Your task to perform on an android device: open wifi settings Image 0: 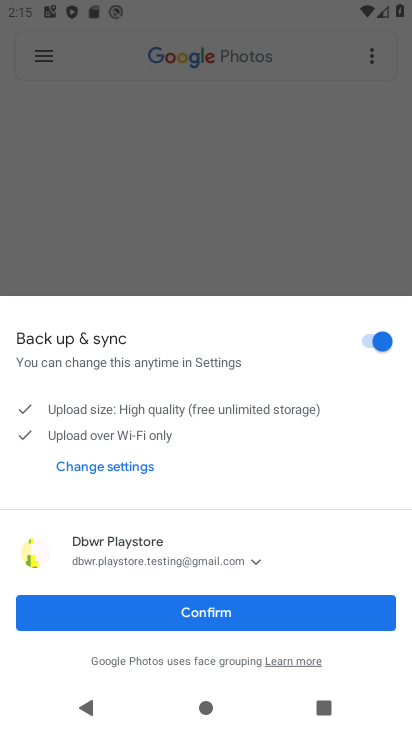
Step 0: press home button
Your task to perform on an android device: open wifi settings Image 1: 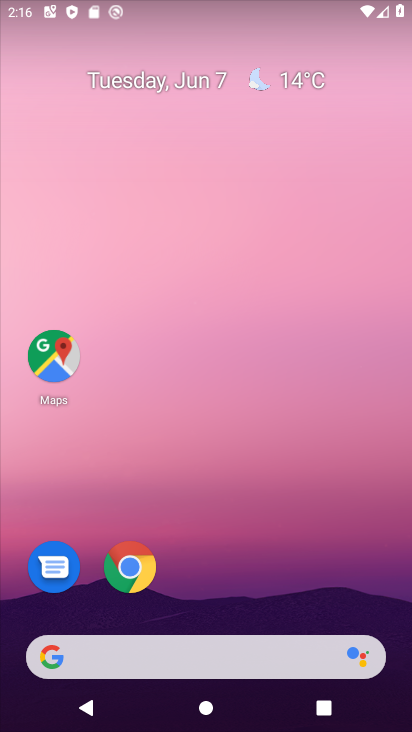
Step 1: drag from (213, 586) to (198, 177)
Your task to perform on an android device: open wifi settings Image 2: 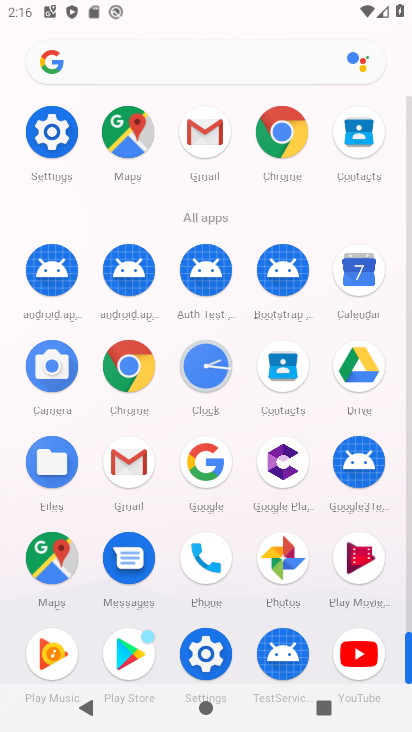
Step 2: click (72, 126)
Your task to perform on an android device: open wifi settings Image 3: 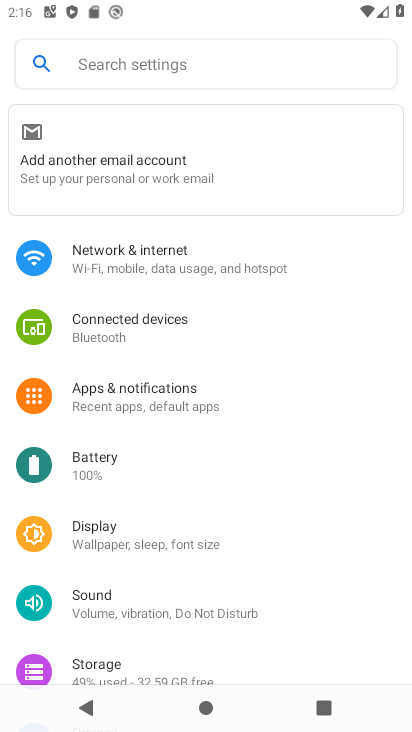
Step 3: click (202, 257)
Your task to perform on an android device: open wifi settings Image 4: 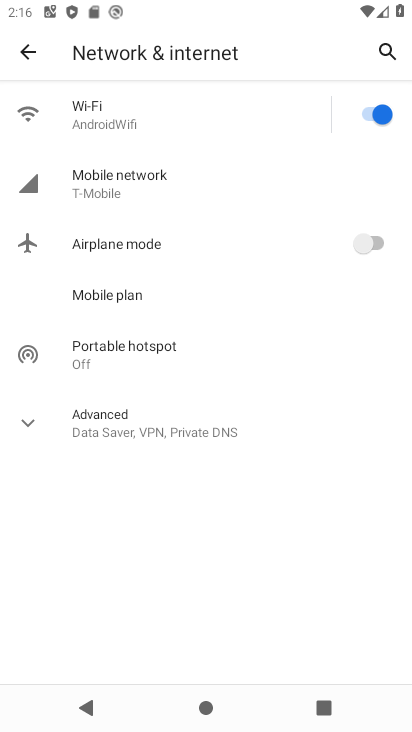
Step 4: click (157, 123)
Your task to perform on an android device: open wifi settings Image 5: 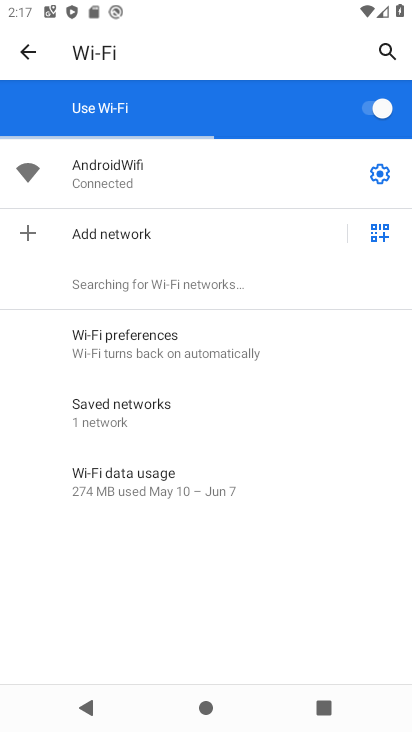
Step 5: task complete